Your task to perform on an android device: Show me popular videos on Youtube Image 0: 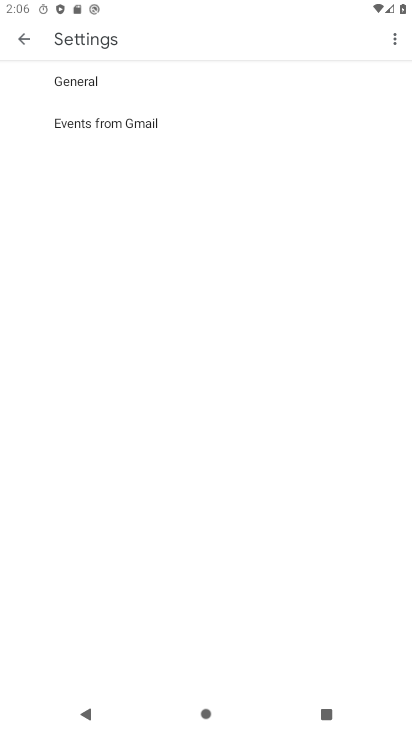
Step 0: press home button
Your task to perform on an android device: Show me popular videos on Youtube Image 1: 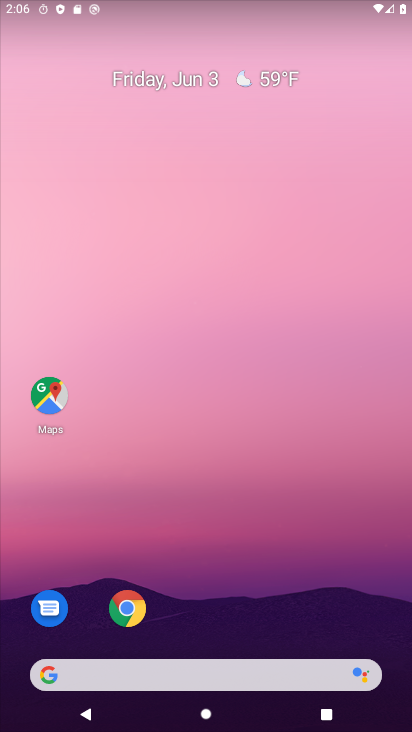
Step 1: drag from (234, 668) to (231, 95)
Your task to perform on an android device: Show me popular videos on Youtube Image 2: 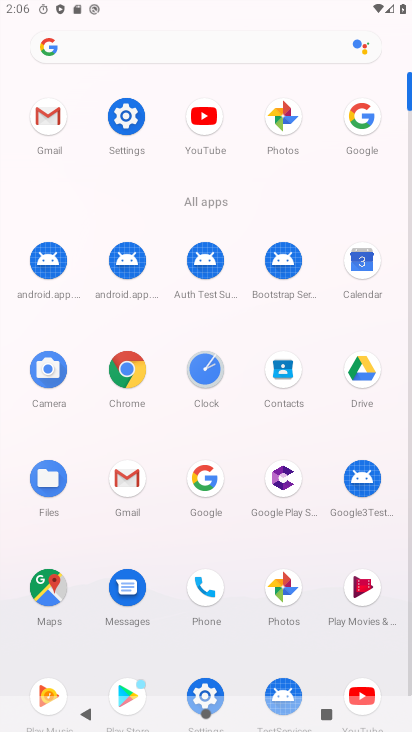
Step 2: click (366, 684)
Your task to perform on an android device: Show me popular videos on Youtube Image 3: 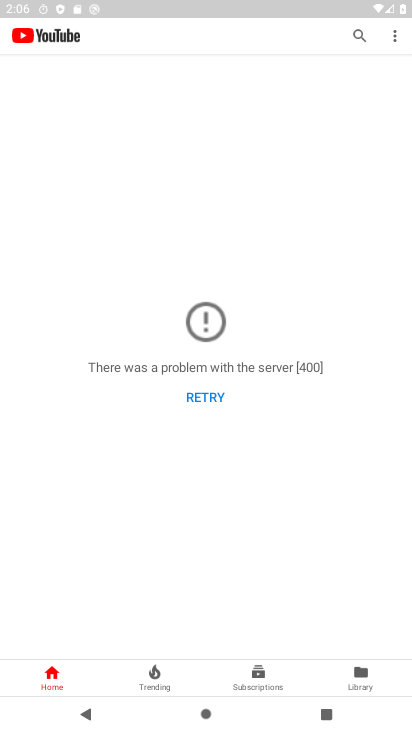
Step 3: task complete